Your task to perform on an android device: turn pop-ups on in chrome Image 0: 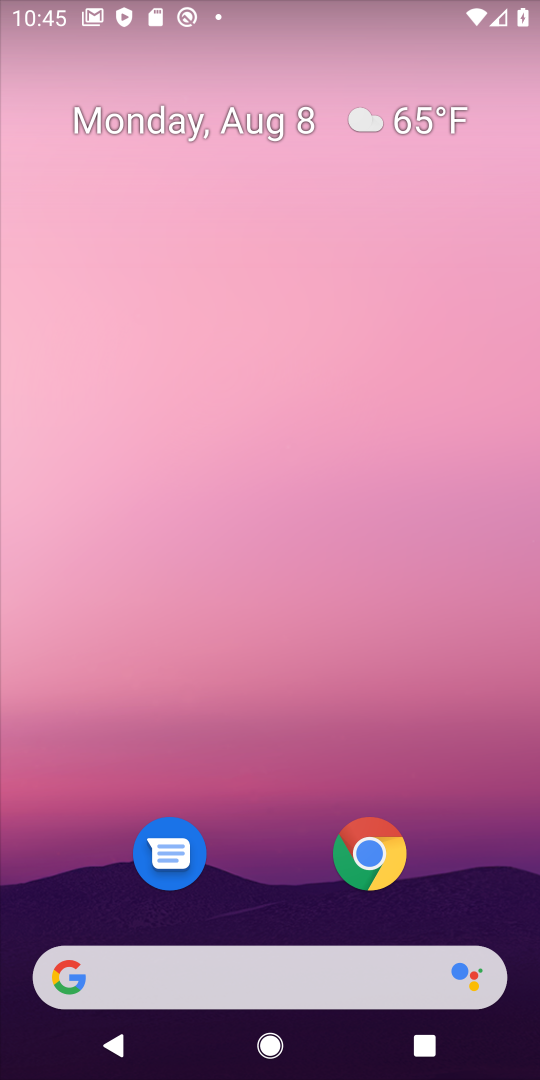
Step 0: click (367, 856)
Your task to perform on an android device: turn pop-ups on in chrome Image 1: 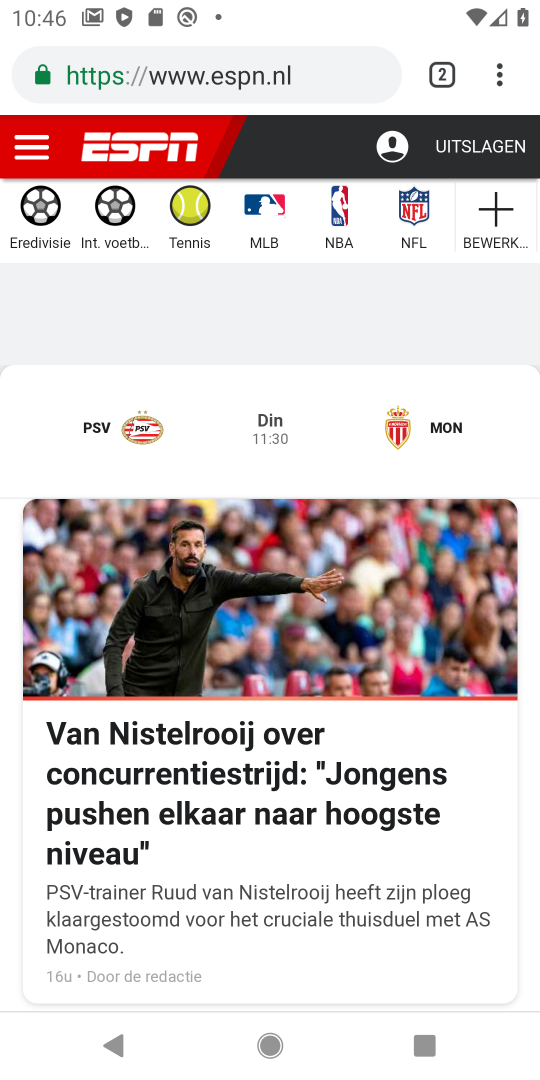
Step 1: click (503, 81)
Your task to perform on an android device: turn pop-ups on in chrome Image 2: 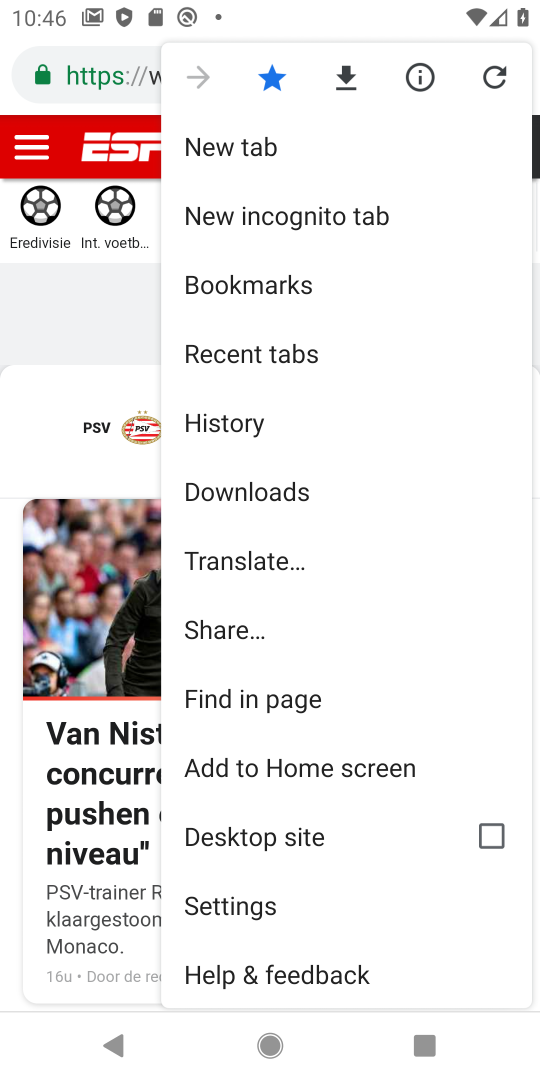
Step 2: click (246, 896)
Your task to perform on an android device: turn pop-ups on in chrome Image 3: 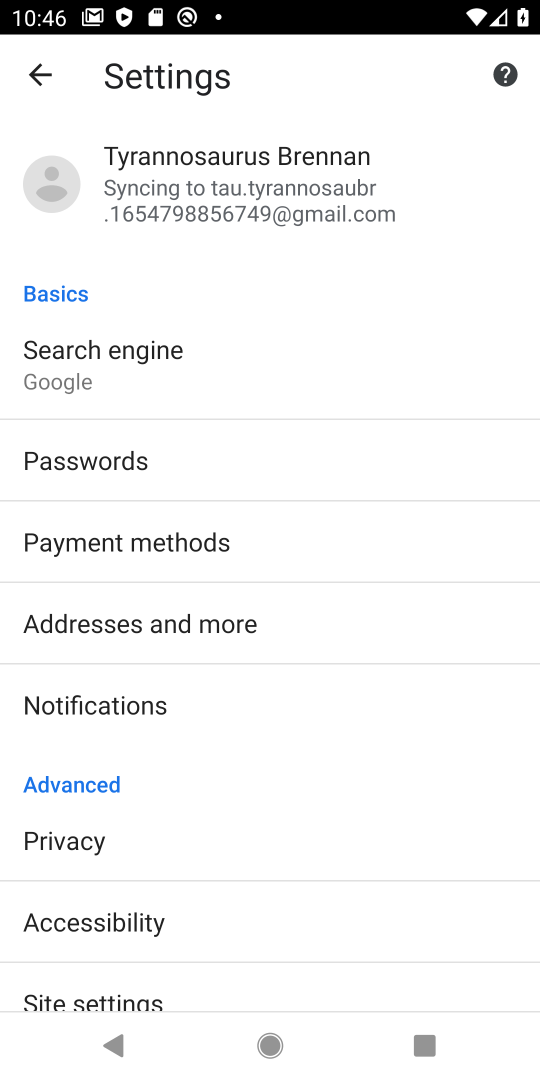
Step 3: click (119, 989)
Your task to perform on an android device: turn pop-ups on in chrome Image 4: 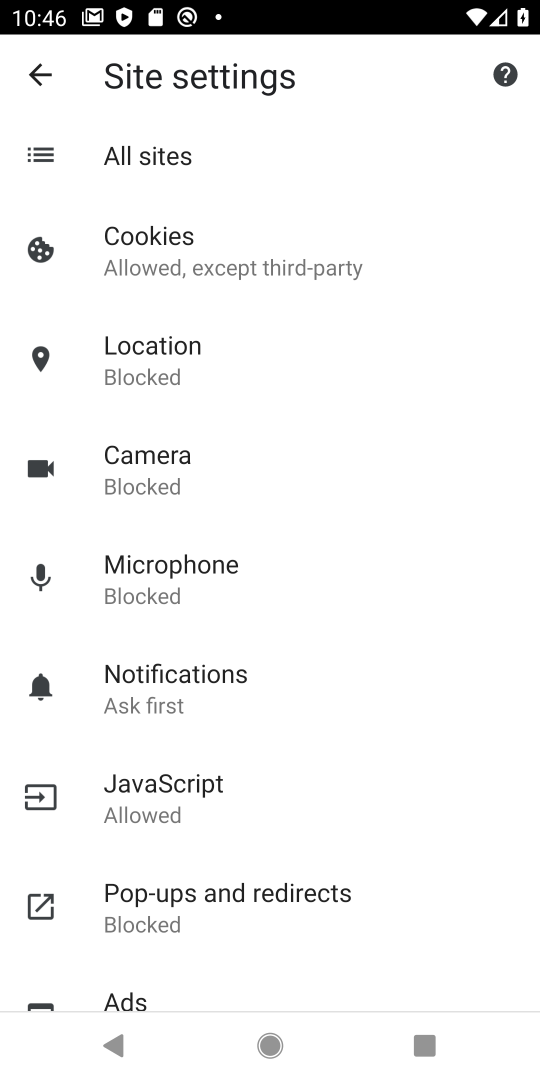
Step 4: click (208, 897)
Your task to perform on an android device: turn pop-ups on in chrome Image 5: 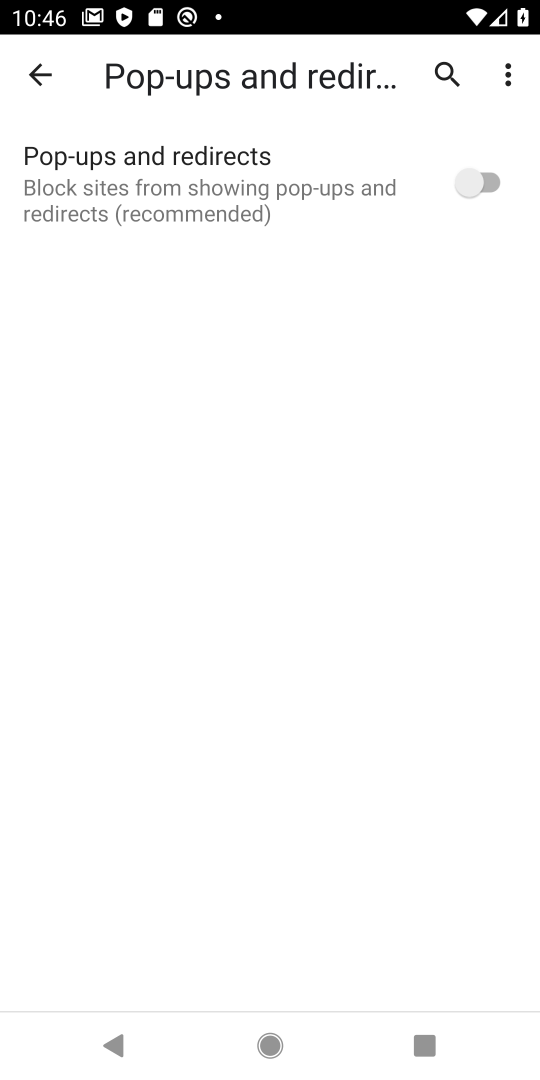
Step 5: click (470, 186)
Your task to perform on an android device: turn pop-ups on in chrome Image 6: 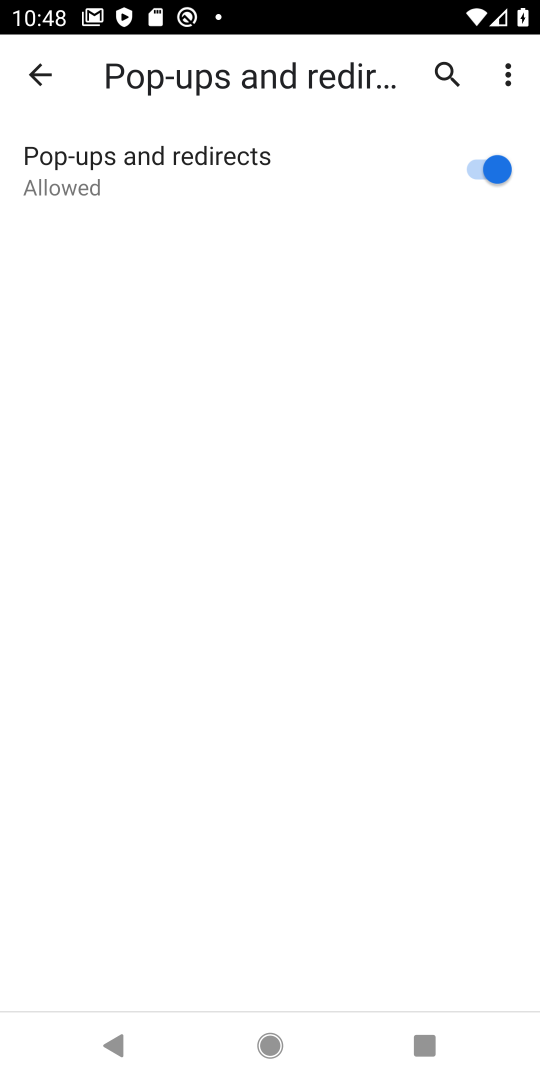
Step 6: task complete